Your task to perform on an android device: check data usage Image 0: 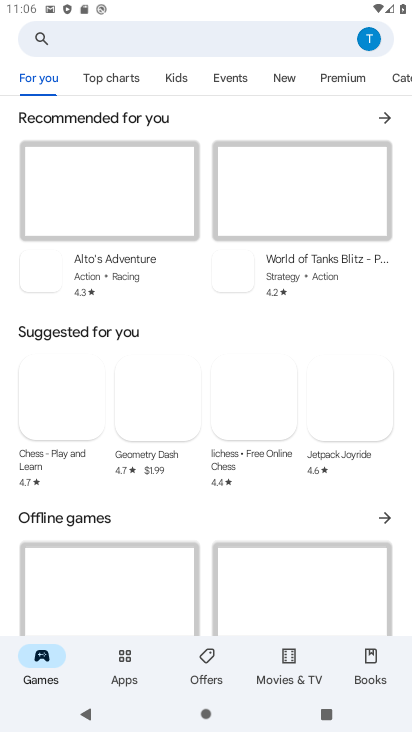
Step 0: press home button
Your task to perform on an android device: check data usage Image 1: 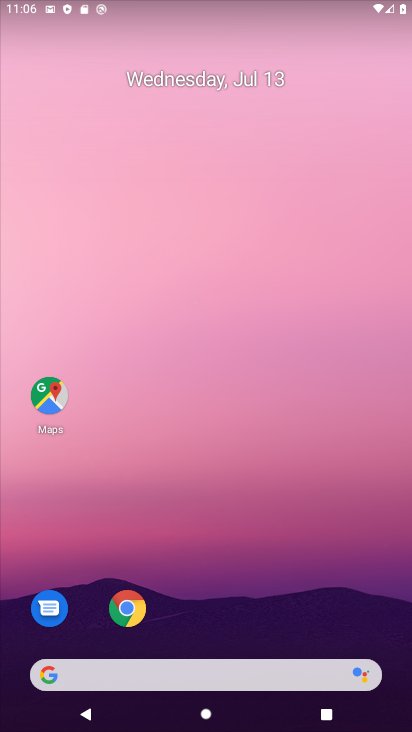
Step 1: drag from (276, 620) to (315, 151)
Your task to perform on an android device: check data usage Image 2: 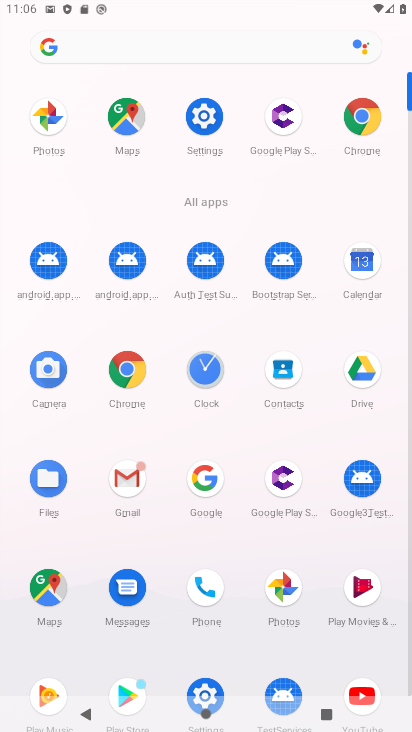
Step 2: click (205, 127)
Your task to perform on an android device: check data usage Image 3: 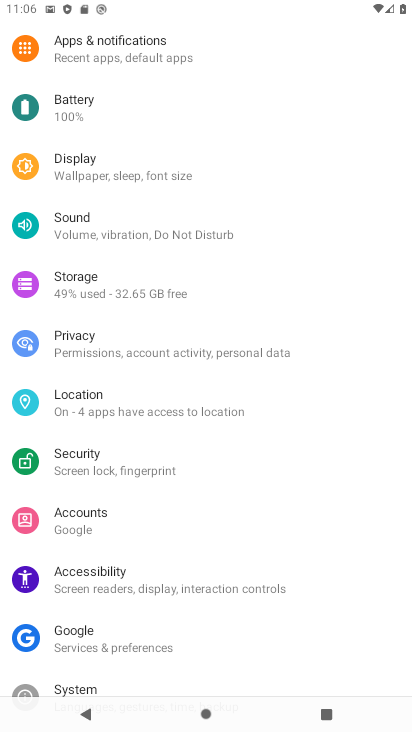
Step 3: drag from (205, 127) to (190, 577)
Your task to perform on an android device: check data usage Image 4: 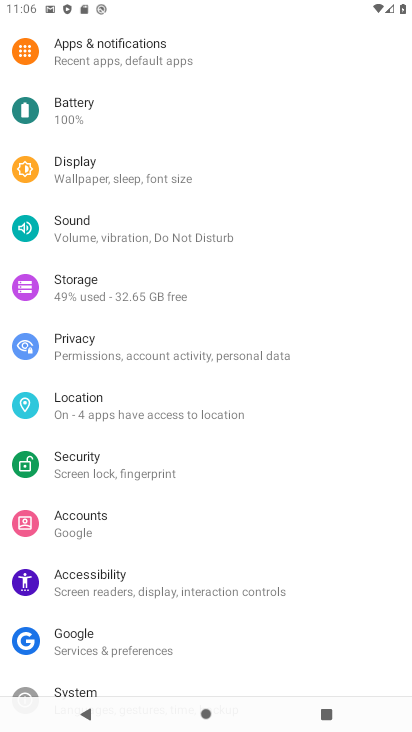
Step 4: drag from (220, 165) to (232, 494)
Your task to perform on an android device: check data usage Image 5: 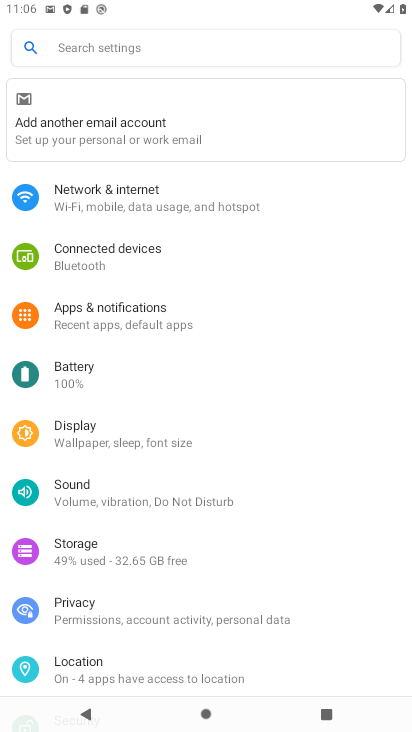
Step 5: click (213, 195)
Your task to perform on an android device: check data usage Image 6: 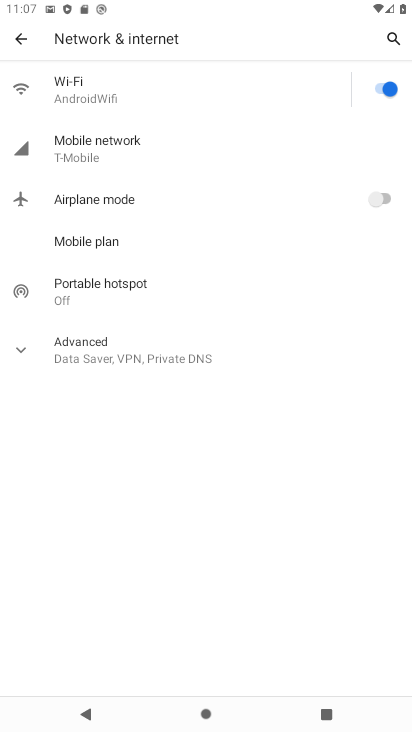
Step 6: click (54, 152)
Your task to perform on an android device: check data usage Image 7: 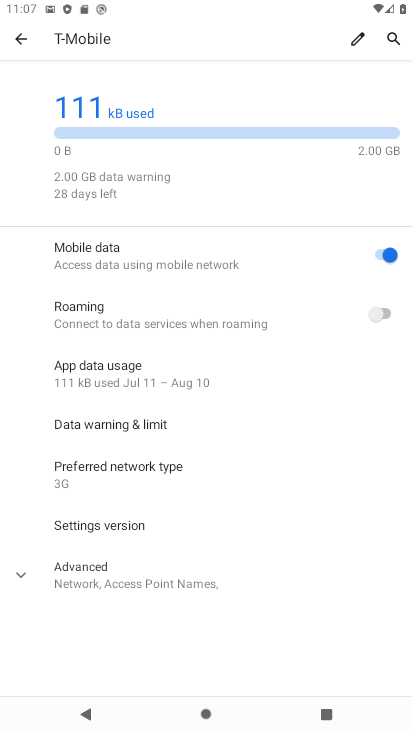
Step 7: click (148, 379)
Your task to perform on an android device: check data usage Image 8: 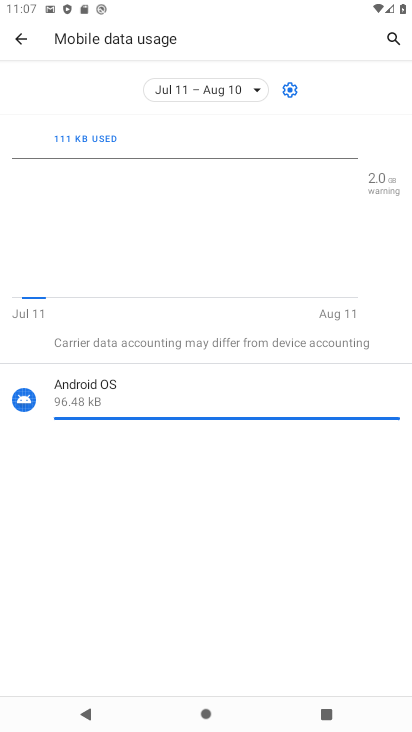
Step 8: task complete